Your task to perform on an android device: set the timer Image 0: 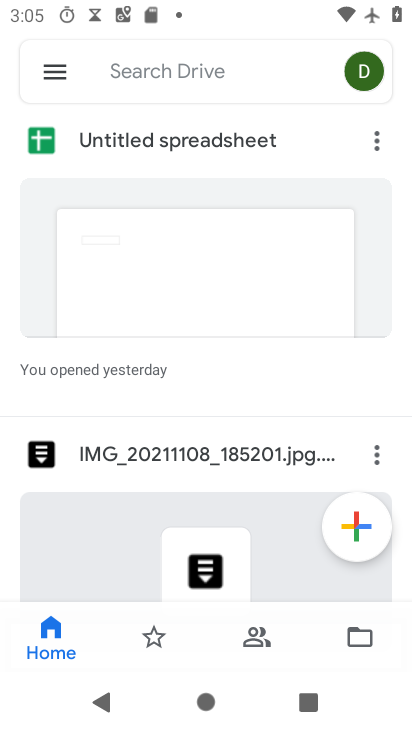
Step 0: press home button
Your task to perform on an android device: set the timer Image 1: 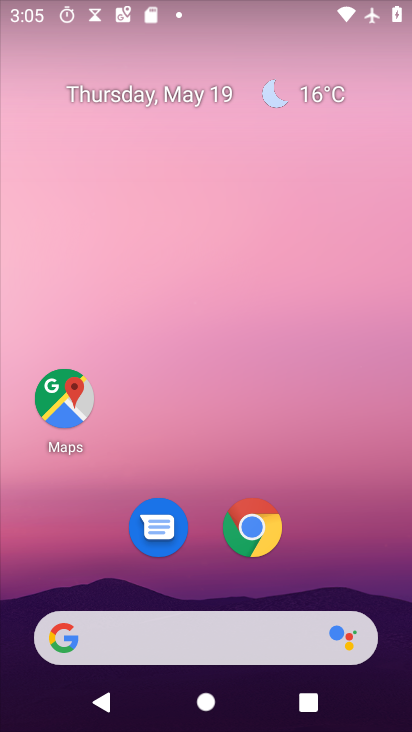
Step 1: drag from (318, 424) to (177, 41)
Your task to perform on an android device: set the timer Image 2: 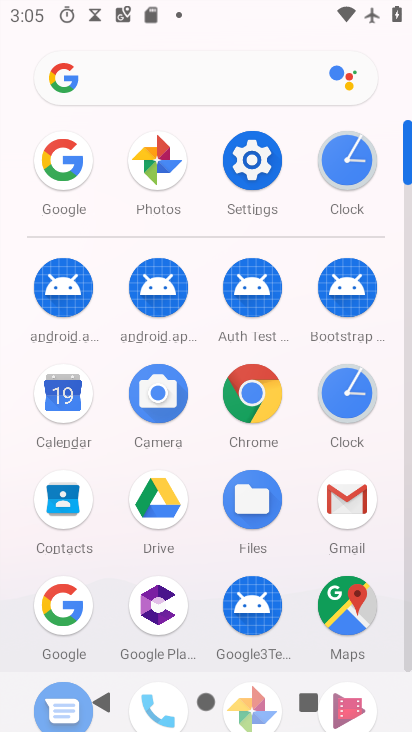
Step 2: click (328, 138)
Your task to perform on an android device: set the timer Image 3: 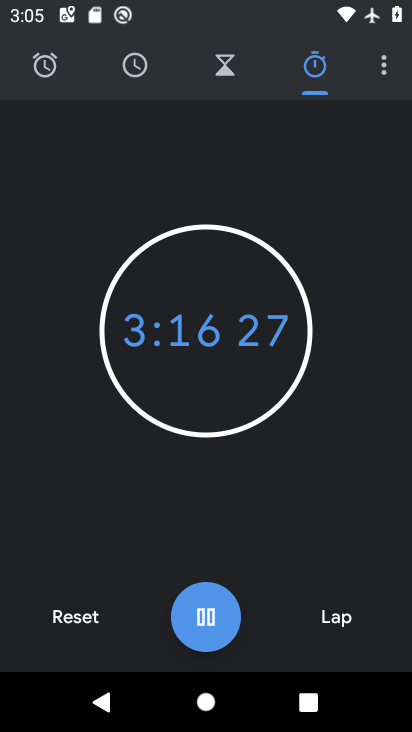
Step 3: click (360, 69)
Your task to perform on an android device: set the timer Image 4: 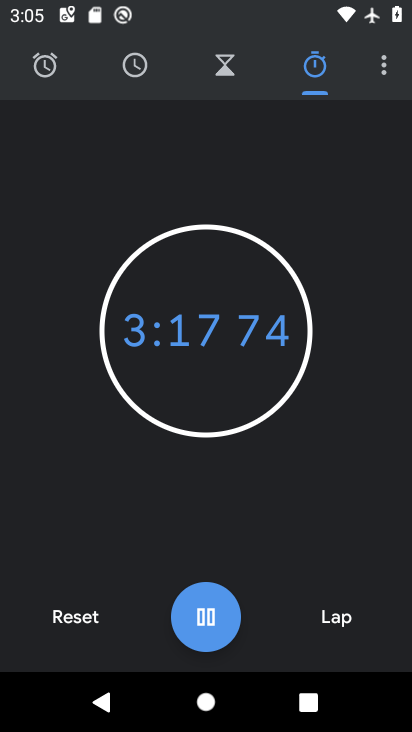
Step 4: click (222, 80)
Your task to perform on an android device: set the timer Image 5: 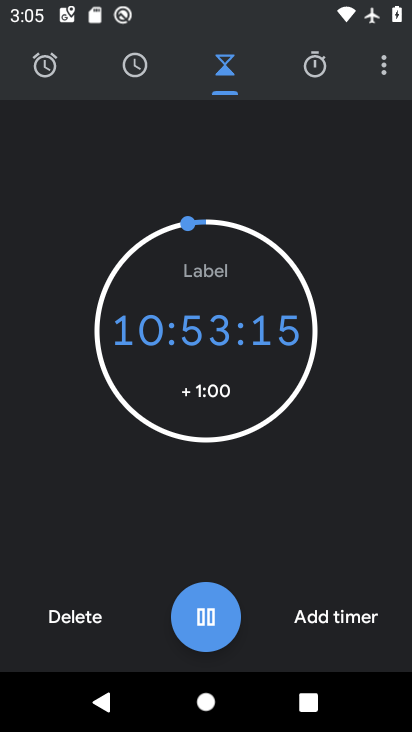
Step 5: click (333, 615)
Your task to perform on an android device: set the timer Image 6: 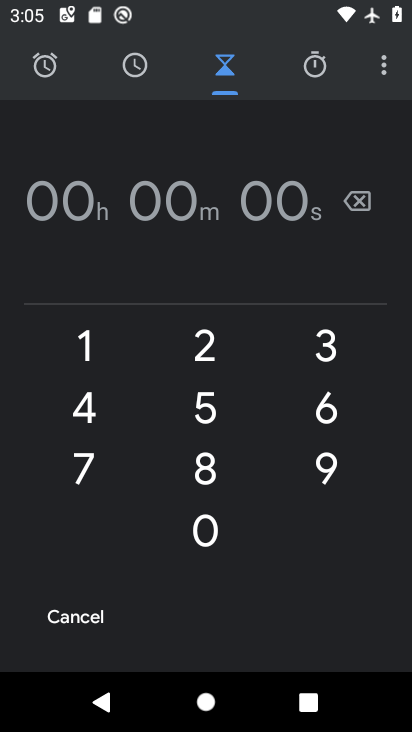
Step 6: click (84, 352)
Your task to perform on an android device: set the timer Image 7: 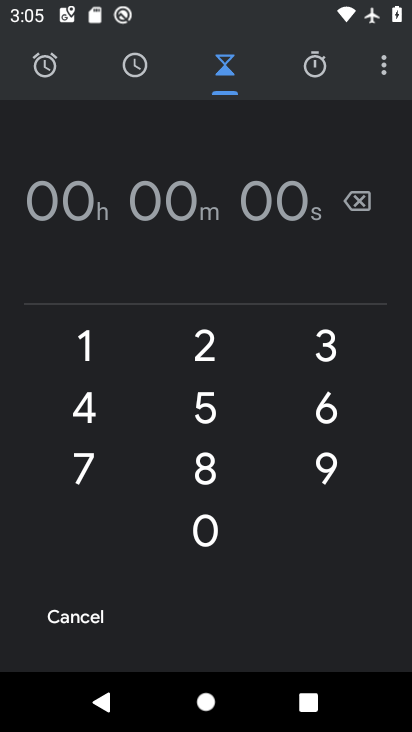
Step 7: click (85, 350)
Your task to perform on an android device: set the timer Image 8: 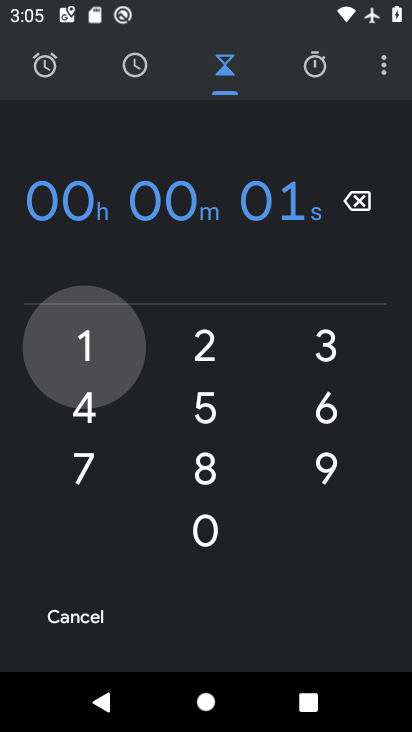
Step 8: click (85, 350)
Your task to perform on an android device: set the timer Image 9: 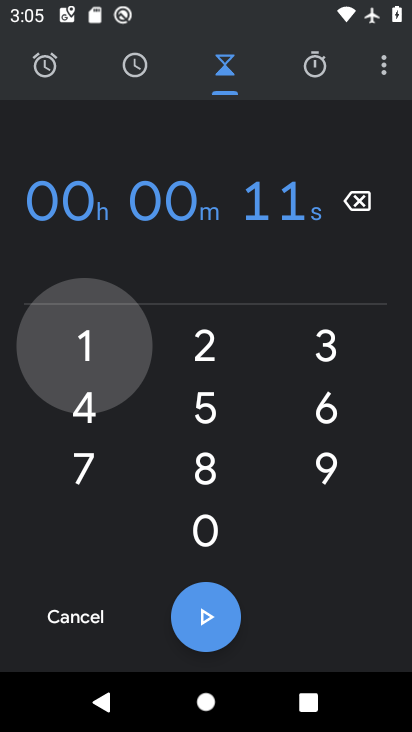
Step 9: click (85, 350)
Your task to perform on an android device: set the timer Image 10: 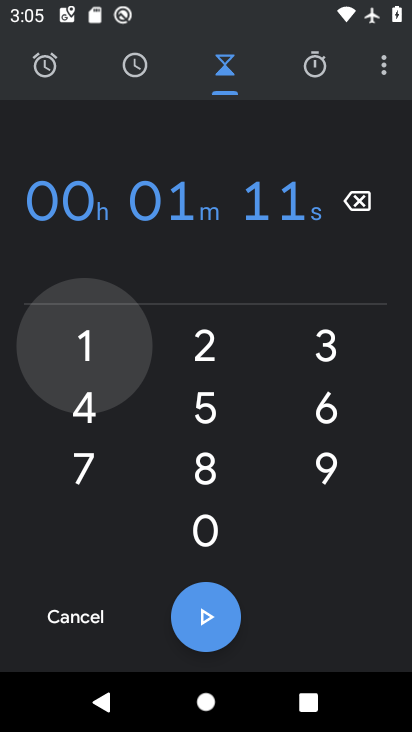
Step 10: click (85, 350)
Your task to perform on an android device: set the timer Image 11: 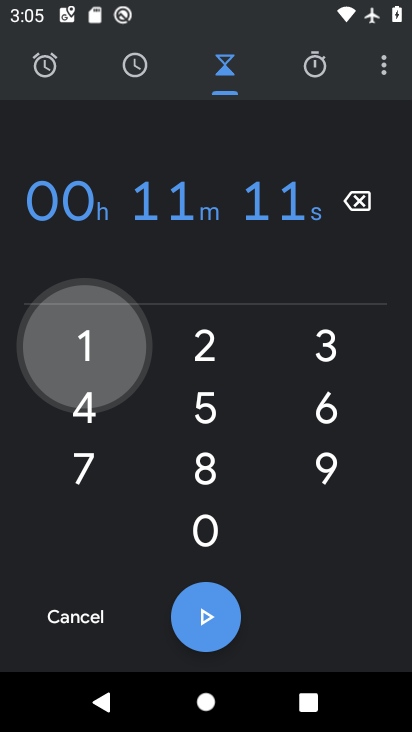
Step 11: click (85, 350)
Your task to perform on an android device: set the timer Image 12: 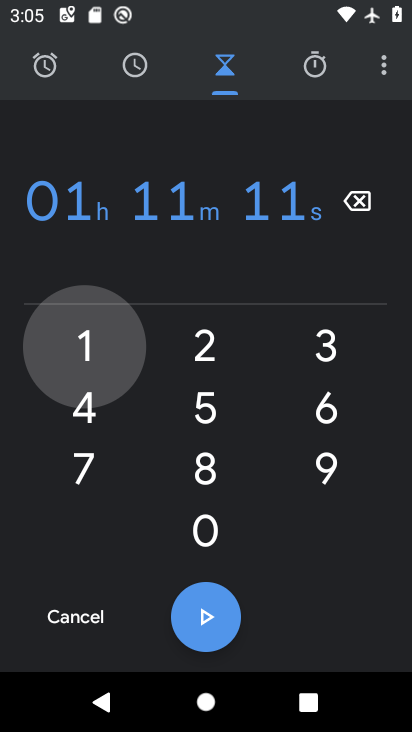
Step 12: click (85, 350)
Your task to perform on an android device: set the timer Image 13: 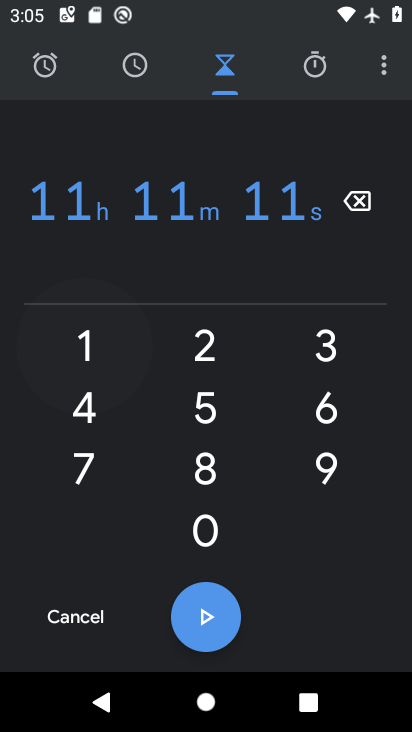
Step 13: click (217, 629)
Your task to perform on an android device: set the timer Image 14: 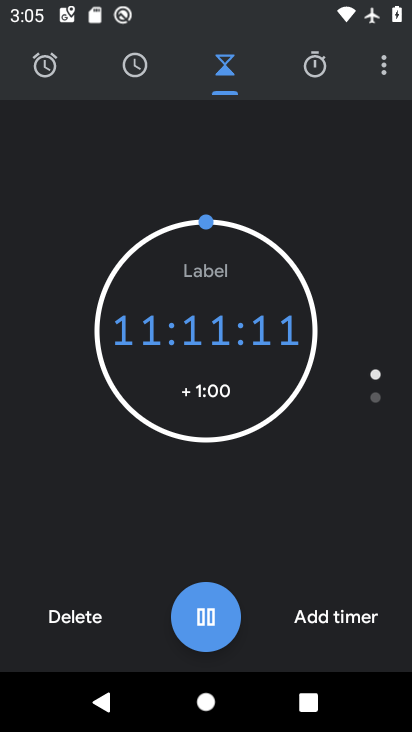
Step 14: task complete